Your task to perform on an android device: clear history in the chrome app Image 0: 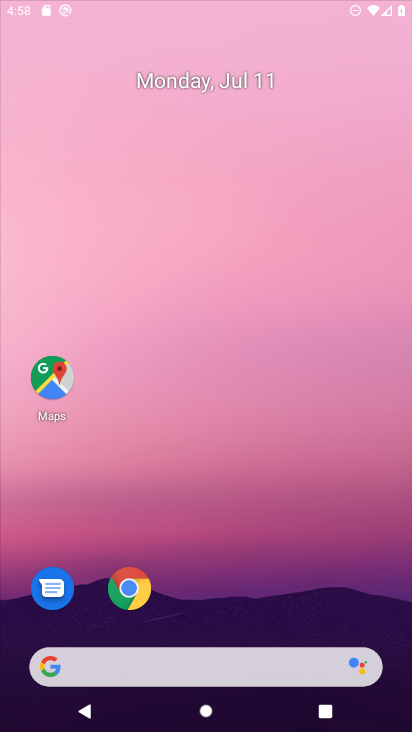
Step 0: press home button
Your task to perform on an android device: clear history in the chrome app Image 1: 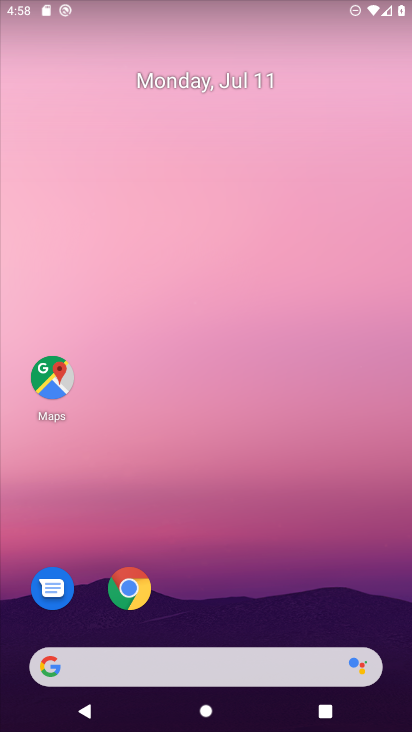
Step 1: drag from (233, 613) to (293, 7)
Your task to perform on an android device: clear history in the chrome app Image 2: 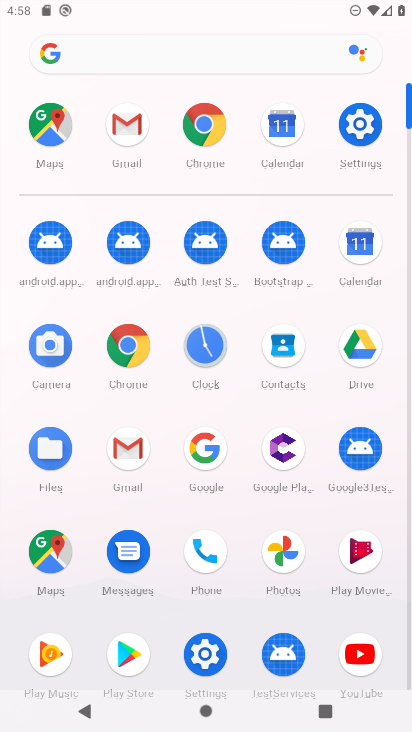
Step 2: click (199, 118)
Your task to perform on an android device: clear history in the chrome app Image 3: 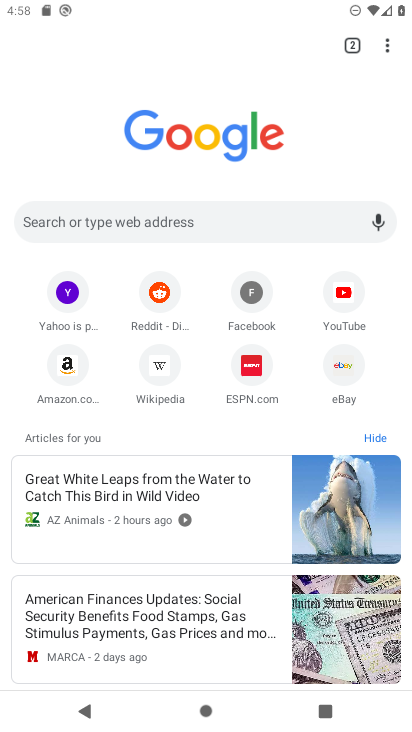
Step 3: click (391, 39)
Your task to perform on an android device: clear history in the chrome app Image 4: 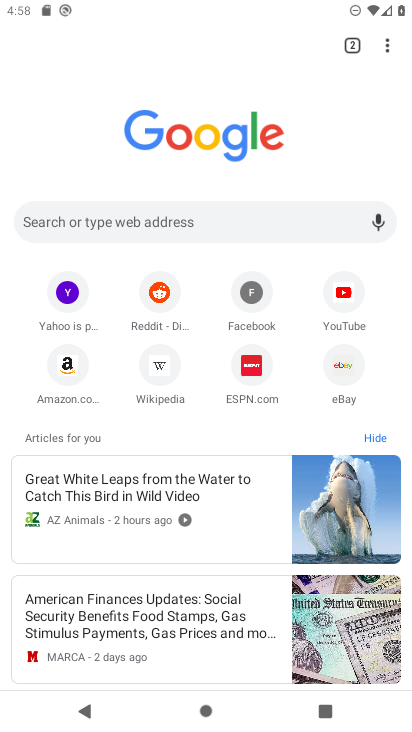
Step 4: drag from (391, 39) to (223, 311)
Your task to perform on an android device: clear history in the chrome app Image 5: 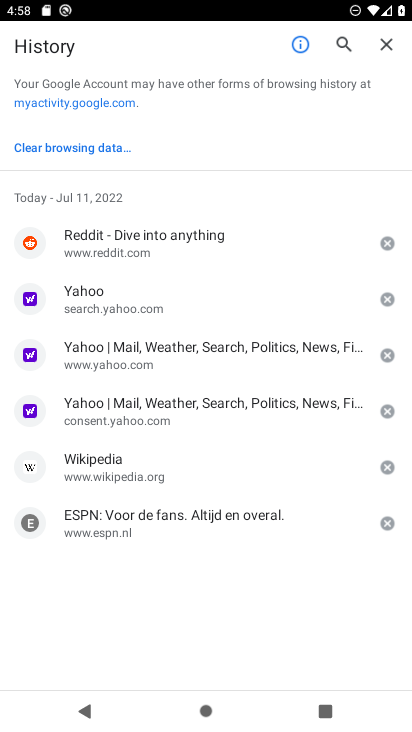
Step 5: click (65, 145)
Your task to perform on an android device: clear history in the chrome app Image 6: 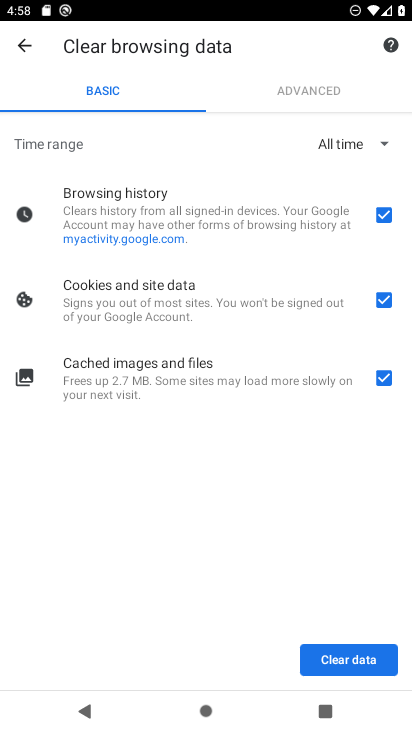
Step 6: click (354, 657)
Your task to perform on an android device: clear history in the chrome app Image 7: 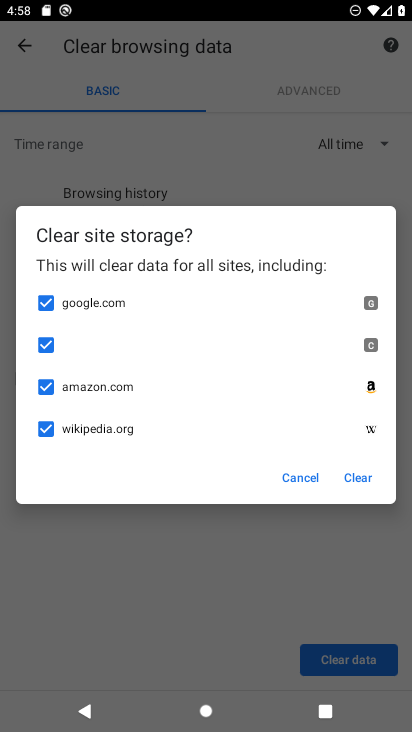
Step 7: click (364, 480)
Your task to perform on an android device: clear history in the chrome app Image 8: 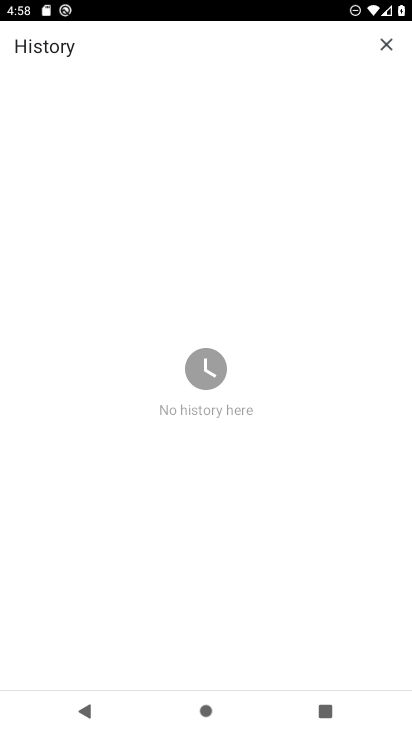
Step 8: task complete